Your task to perform on an android device: open a bookmark in the chrome app Image 0: 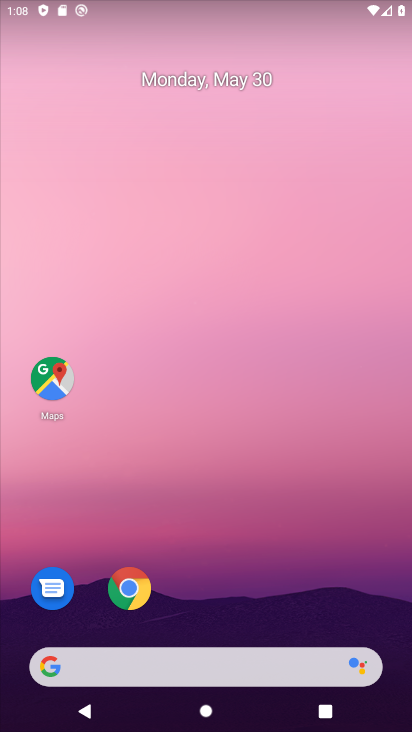
Step 0: click (129, 586)
Your task to perform on an android device: open a bookmark in the chrome app Image 1: 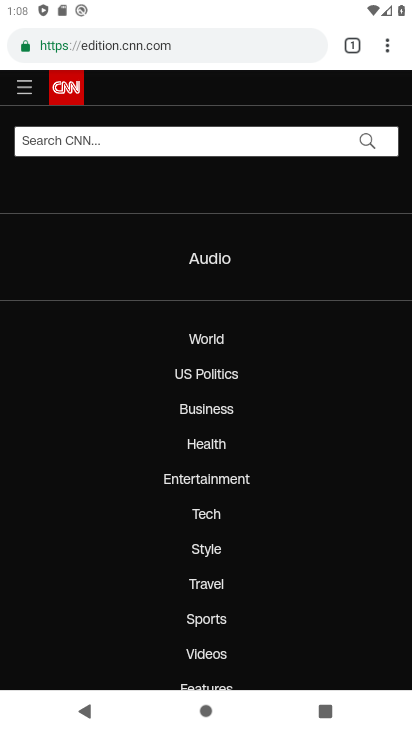
Step 1: click (388, 51)
Your task to perform on an android device: open a bookmark in the chrome app Image 2: 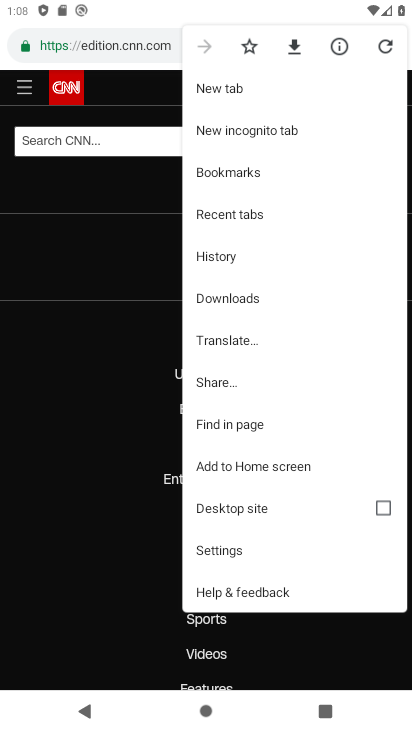
Step 2: click (230, 169)
Your task to perform on an android device: open a bookmark in the chrome app Image 3: 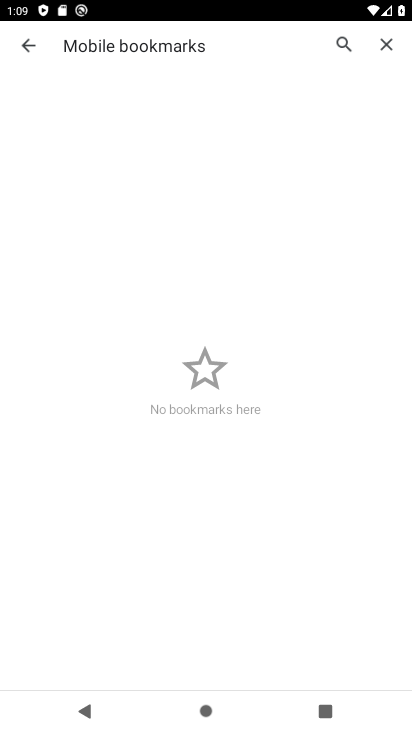
Step 3: task complete